Your task to perform on an android device: allow cookies in the chrome app Image 0: 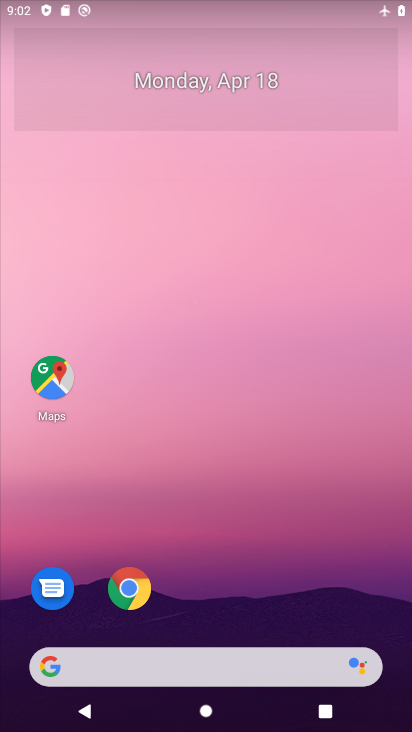
Step 0: drag from (268, 593) to (280, 154)
Your task to perform on an android device: allow cookies in the chrome app Image 1: 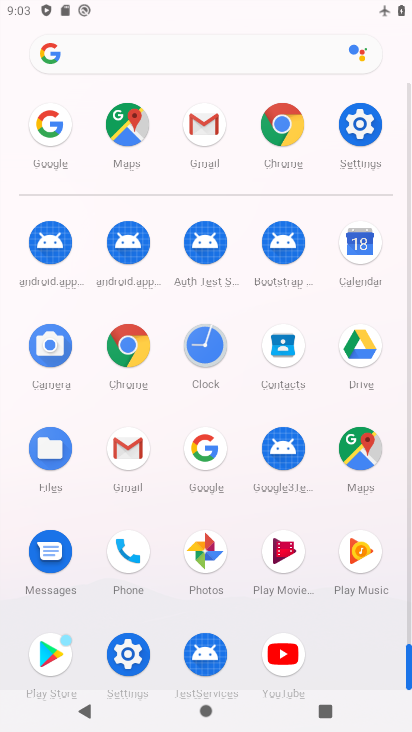
Step 1: click (113, 345)
Your task to perform on an android device: allow cookies in the chrome app Image 2: 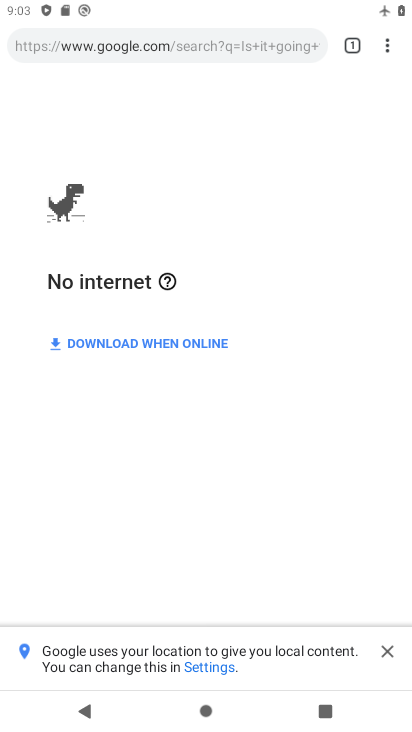
Step 2: click (393, 651)
Your task to perform on an android device: allow cookies in the chrome app Image 3: 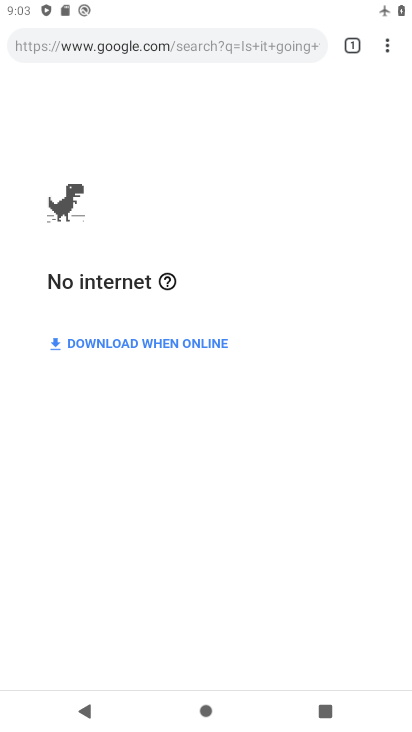
Step 3: task complete